Your task to perform on an android device: Open Google Maps and go to "Timeline" Image 0: 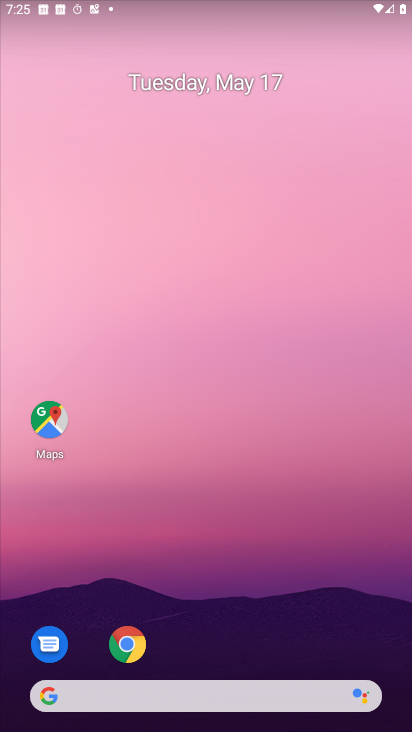
Step 0: drag from (355, 635) to (234, 60)
Your task to perform on an android device: Open Google Maps and go to "Timeline" Image 1: 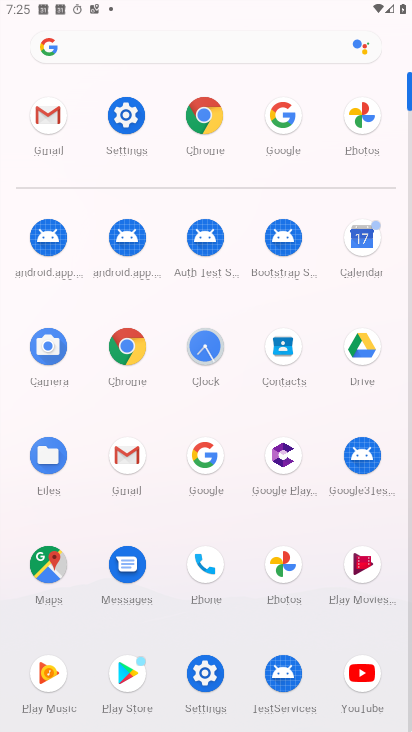
Step 1: click (54, 574)
Your task to perform on an android device: Open Google Maps and go to "Timeline" Image 2: 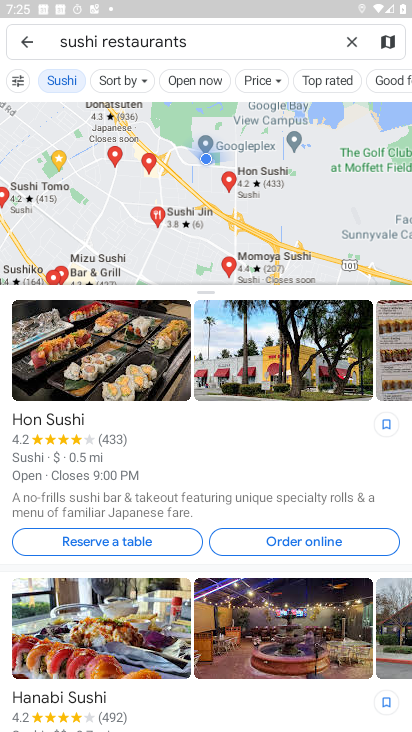
Step 2: click (351, 34)
Your task to perform on an android device: Open Google Maps and go to "Timeline" Image 3: 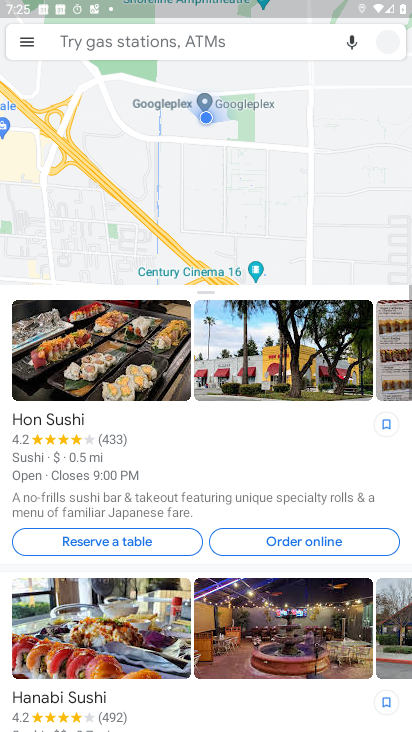
Step 3: click (23, 45)
Your task to perform on an android device: Open Google Maps and go to "Timeline" Image 4: 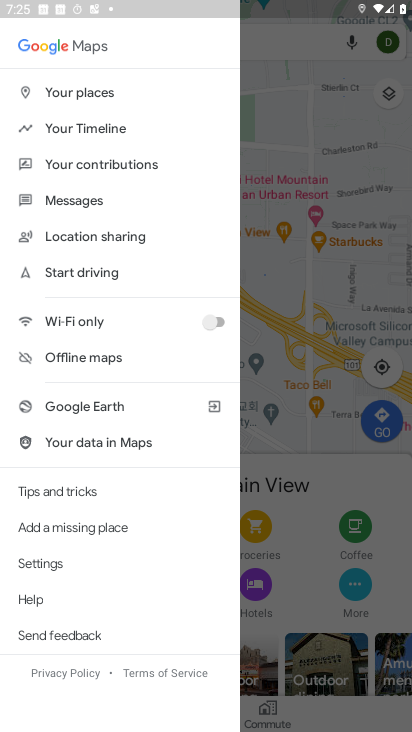
Step 4: click (26, 38)
Your task to perform on an android device: Open Google Maps and go to "Timeline" Image 5: 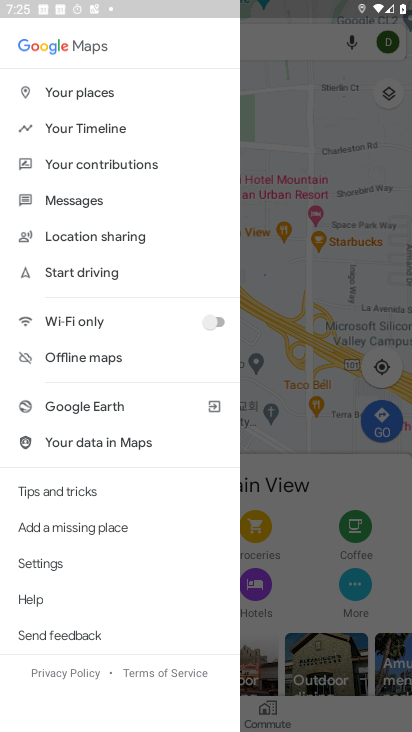
Step 5: click (89, 121)
Your task to perform on an android device: Open Google Maps and go to "Timeline" Image 6: 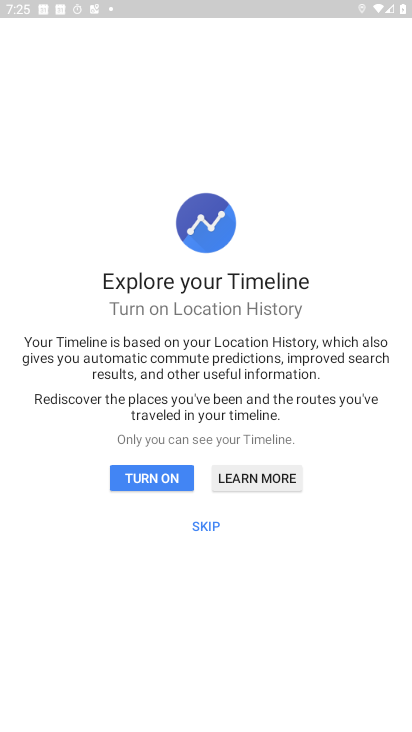
Step 6: task complete